Your task to perform on an android device: open a new tab in the chrome app Image 0: 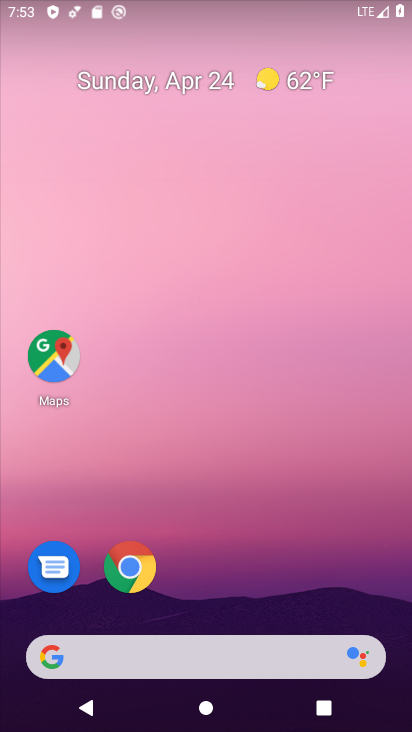
Step 0: click (130, 569)
Your task to perform on an android device: open a new tab in the chrome app Image 1: 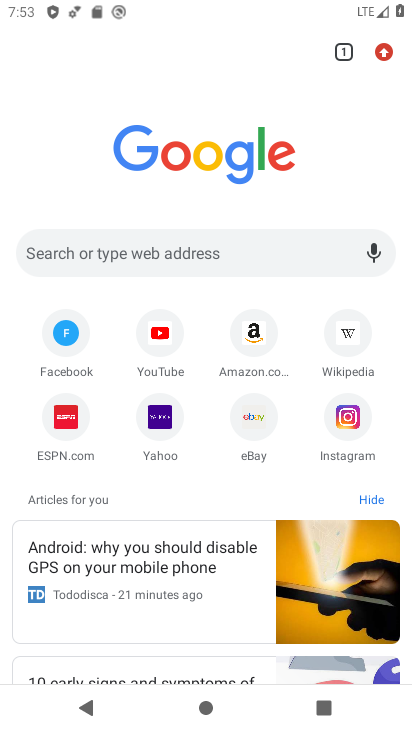
Step 1: click (385, 55)
Your task to perform on an android device: open a new tab in the chrome app Image 2: 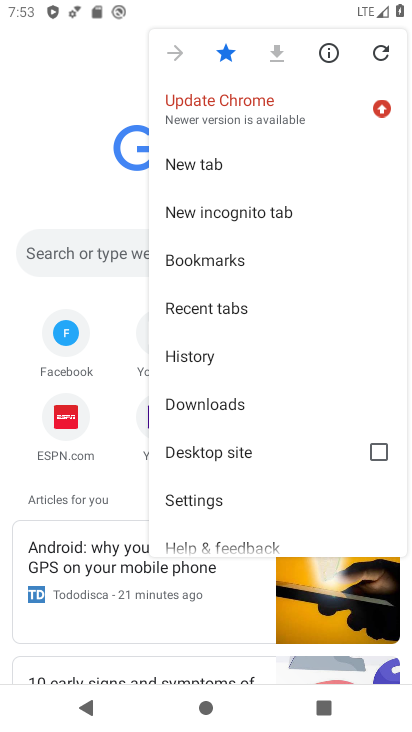
Step 2: click (214, 169)
Your task to perform on an android device: open a new tab in the chrome app Image 3: 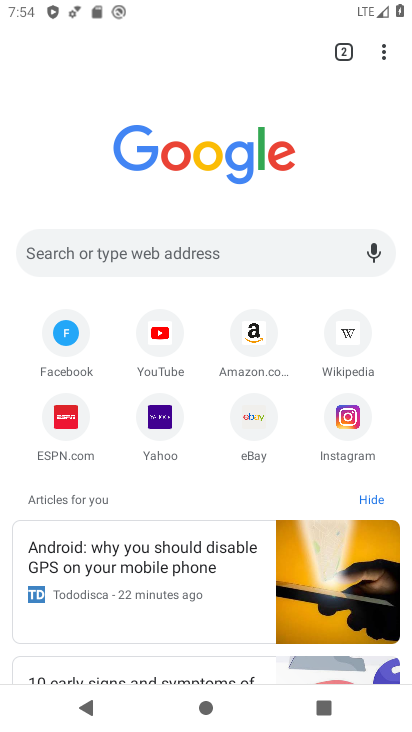
Step 3: task complete